Your task to perform on an android device: Open internet settings Image 0: 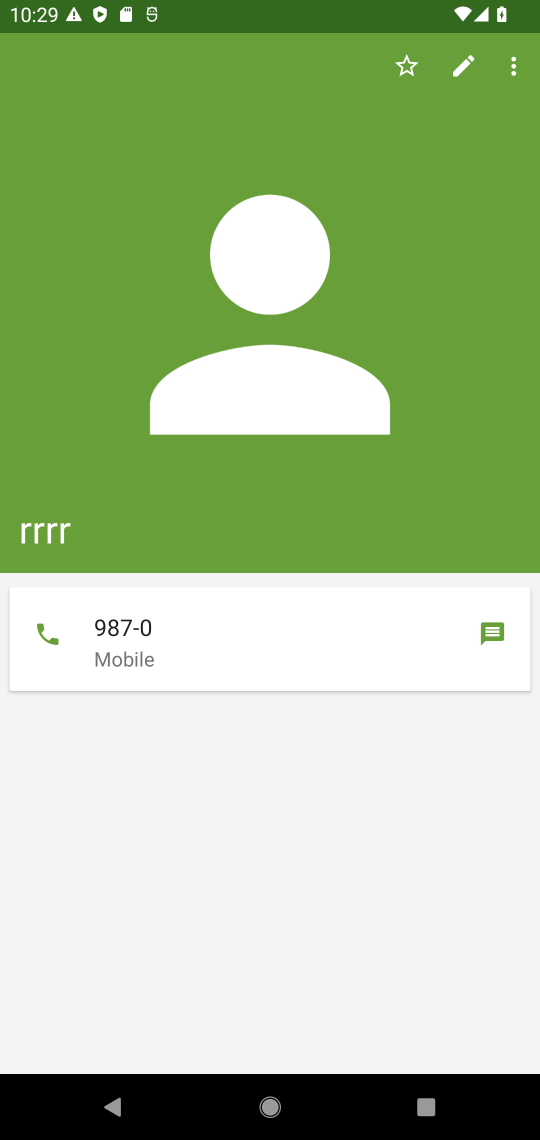
Step 0: press home button
Your task to perform on an android device: Open internet settings Image 1: 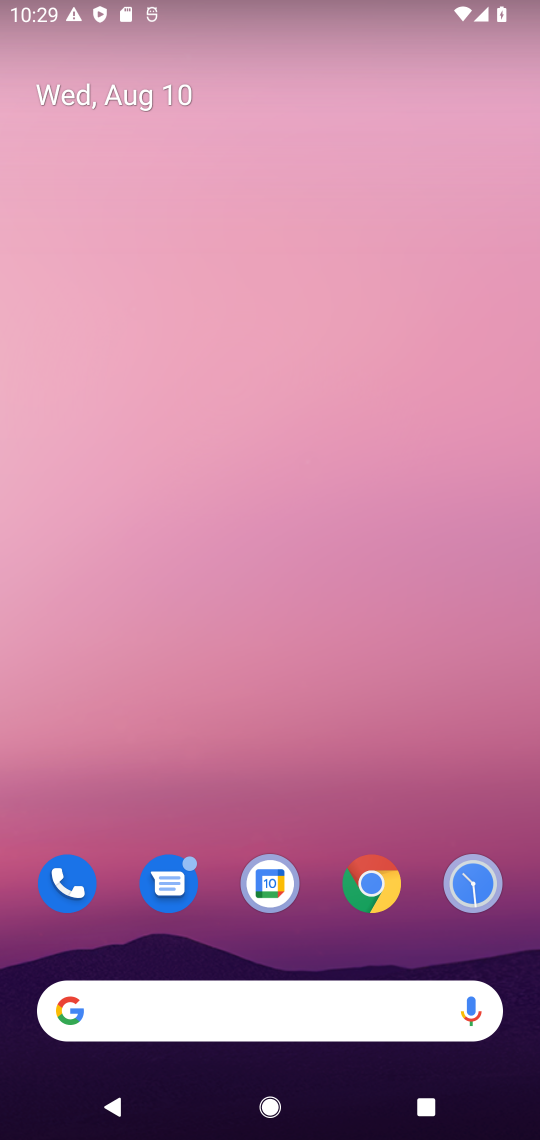
Step 1: drag from (317, 782) to (341, 123)
Your task to perform on an android device: Open internet settings Image 2: 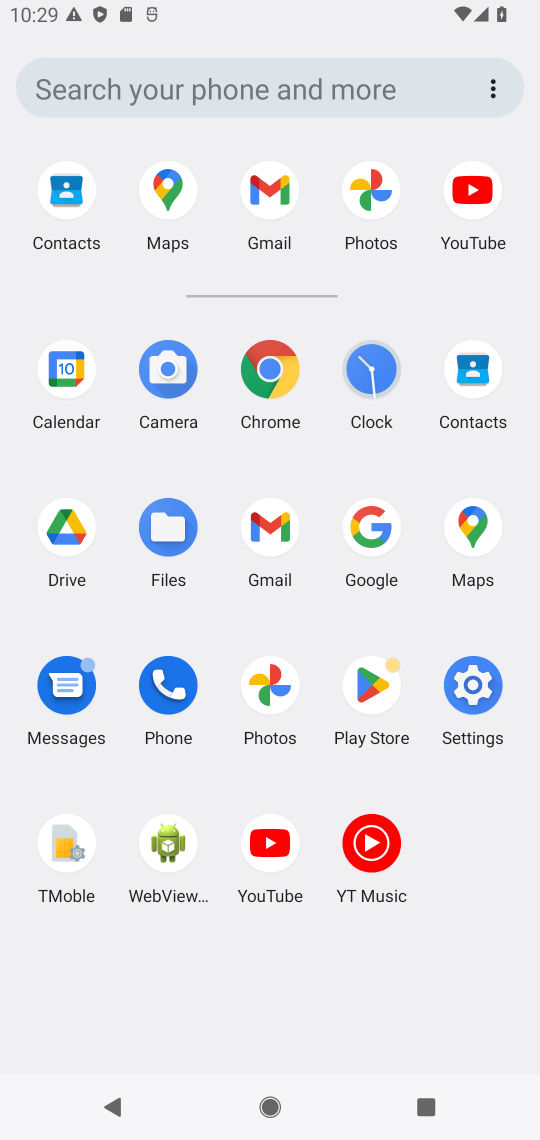
Step 2: click (468, 671)
Your task to perform on an android device: Open internet settings Image 3: 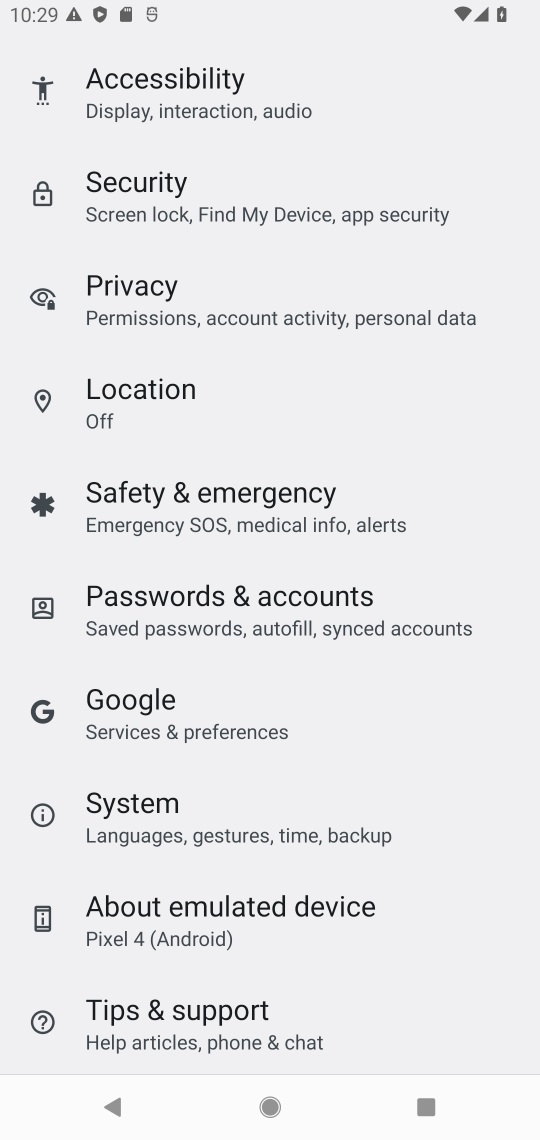
Step 3: drag from (331, 132) to (312, 1082)
Your task to perform on an android device: Open internet settings Image 4: 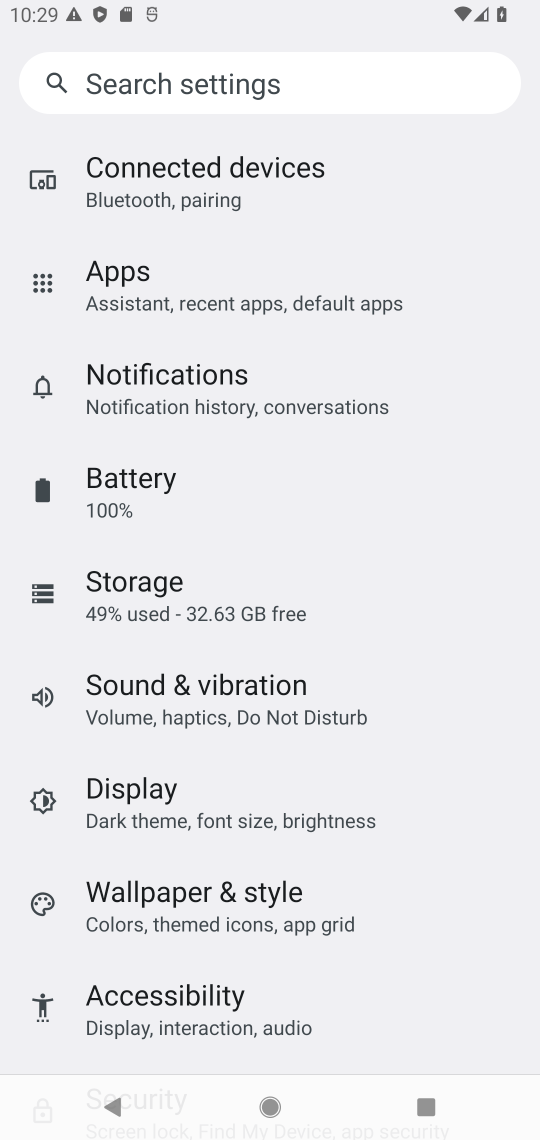
Step 4: drag from (282, 309) to (238, 856)
Your task to perform on an android device: Open internet settings Image 5: 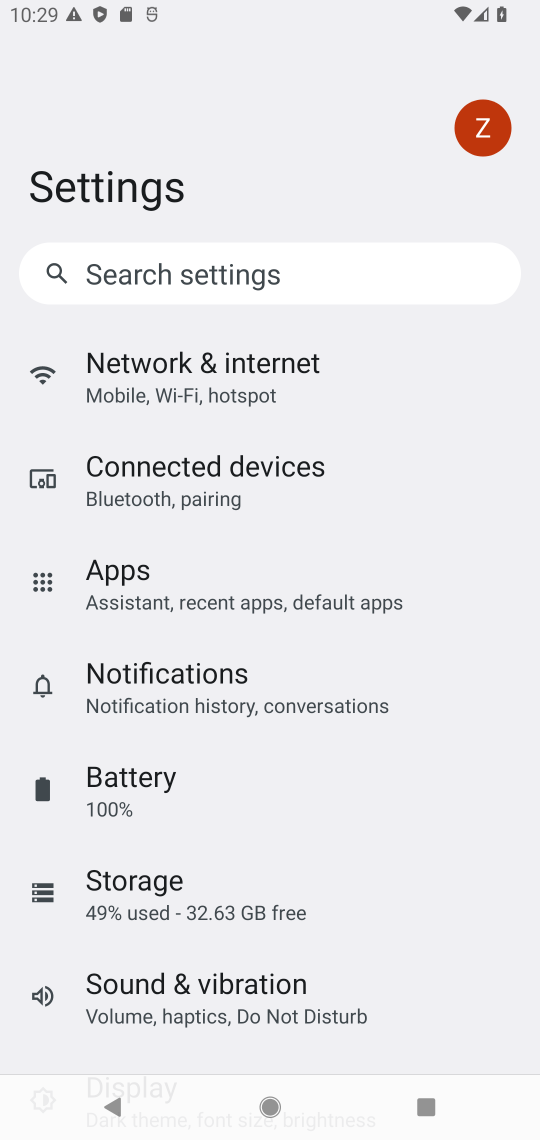
Step 5: click (177, 374)
Your task to perform on an android device: Open internet settings Image 6: 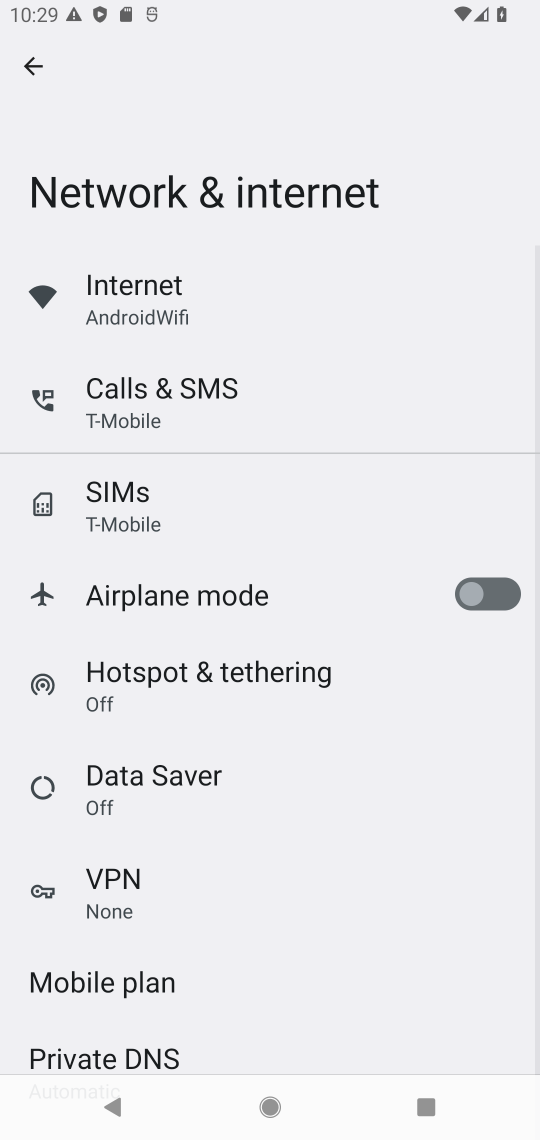
Step 6: task complete